Your task to perform on an android device: toggle notifications settings in the gmail app Image 0: 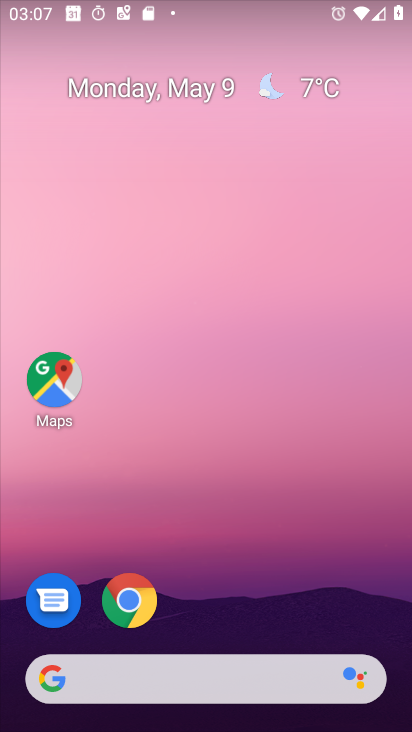
Step 0: drag from (198, 672) to (148, 267)
Your task to perform on an android device: toggle notifications settings in the gmail app Image 1: 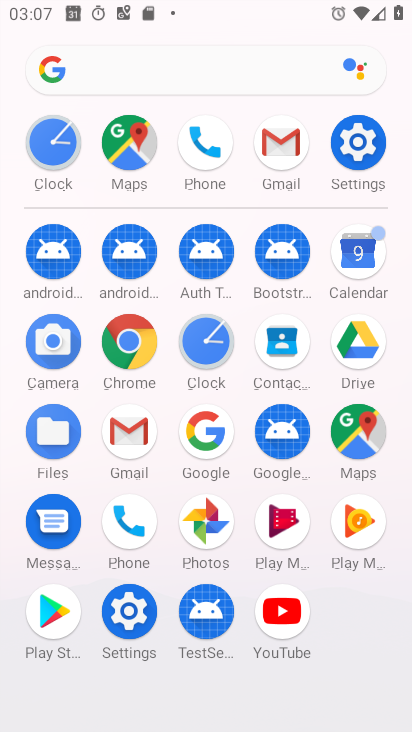
Step 1: click (300, 153)
Your task to perform on an android device: toggle notifications settings in the gmail app Image 2: 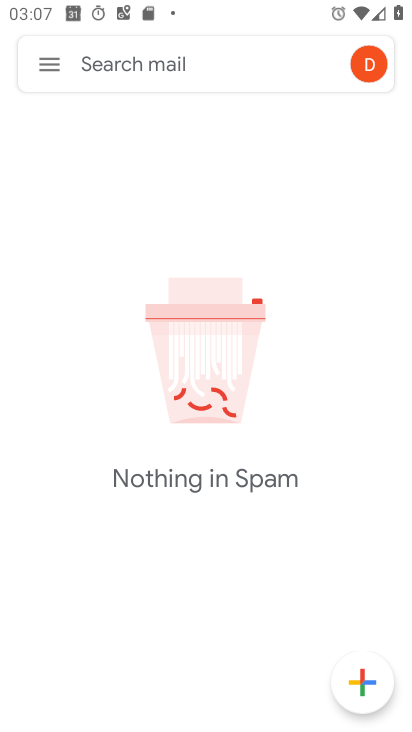
Step 2: click (45, 82)
Your task to perform on an android device: toggle notifications settings in the gmail app Image 3: 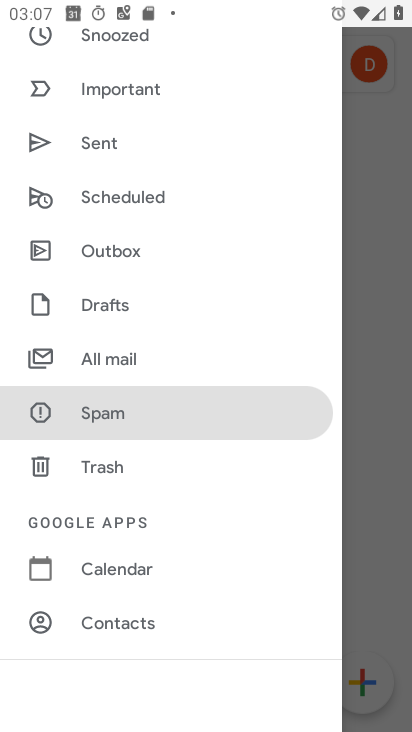
Step 3: drag from (168, 577) to (117, 325)
Your task to perform on an android device: toggle notifications settings in the gmail app Image 4: 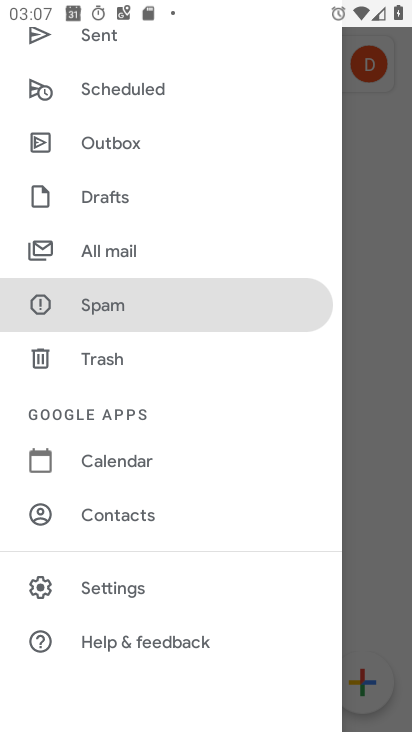
Step 4: click (128, 581)
Your task to perform on an android device: toggle notifications settings in the gmail app Image 5: 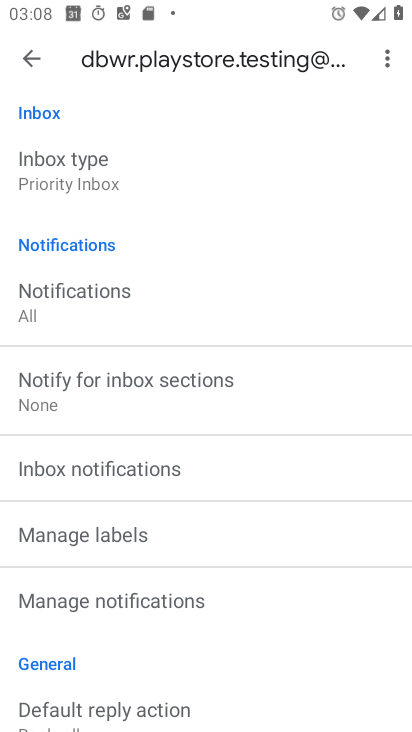
Step 5: click (130, 599)
Your task to perform on an android device: toggle notifications settings in the gmail app Image 6: 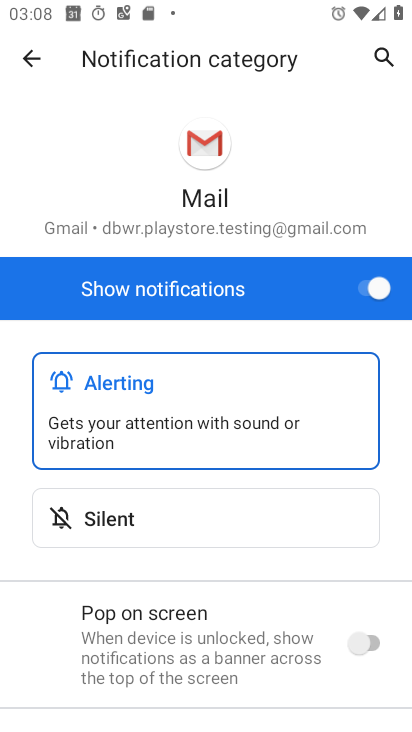
Step 6: click (363, 290)
Your task to perform on an android device: toggle notifications settings in the gmail app Image 7: 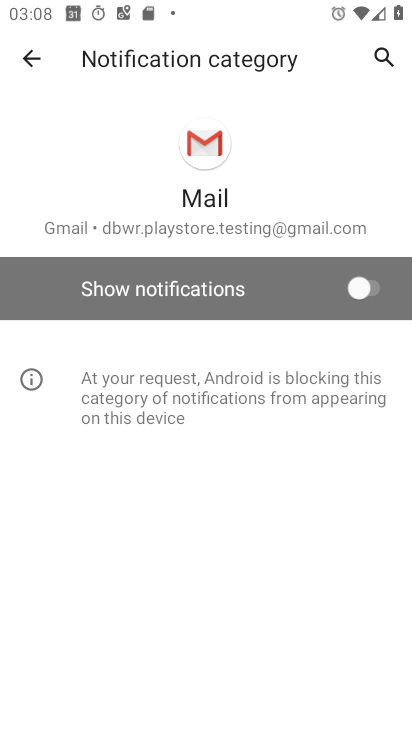
Step 7: task complete